Your task to perform on an android device: Is it going to rain today? Image 0: 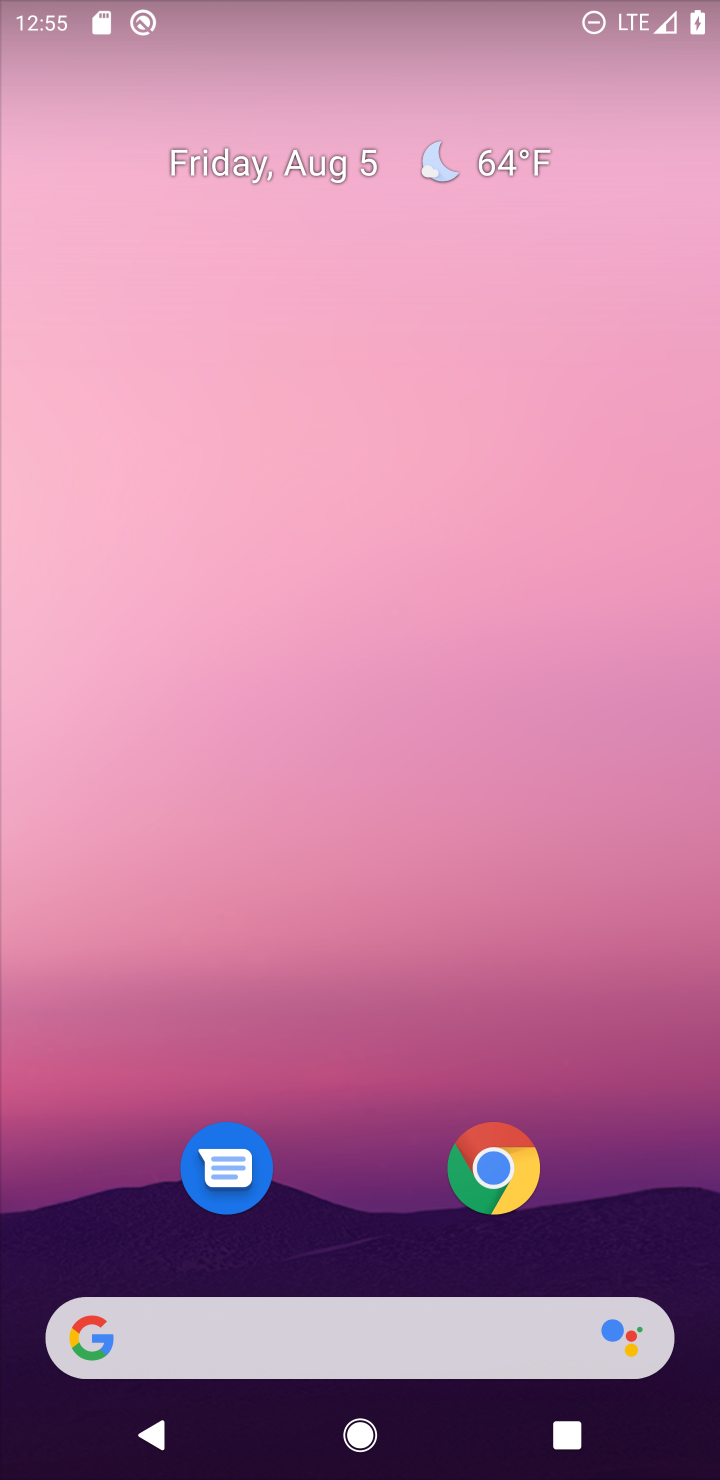
Step 0: drag from (670, 1174) to (313, 59)
Your task to perform on an android device: Is it going to rain today? Image 1: 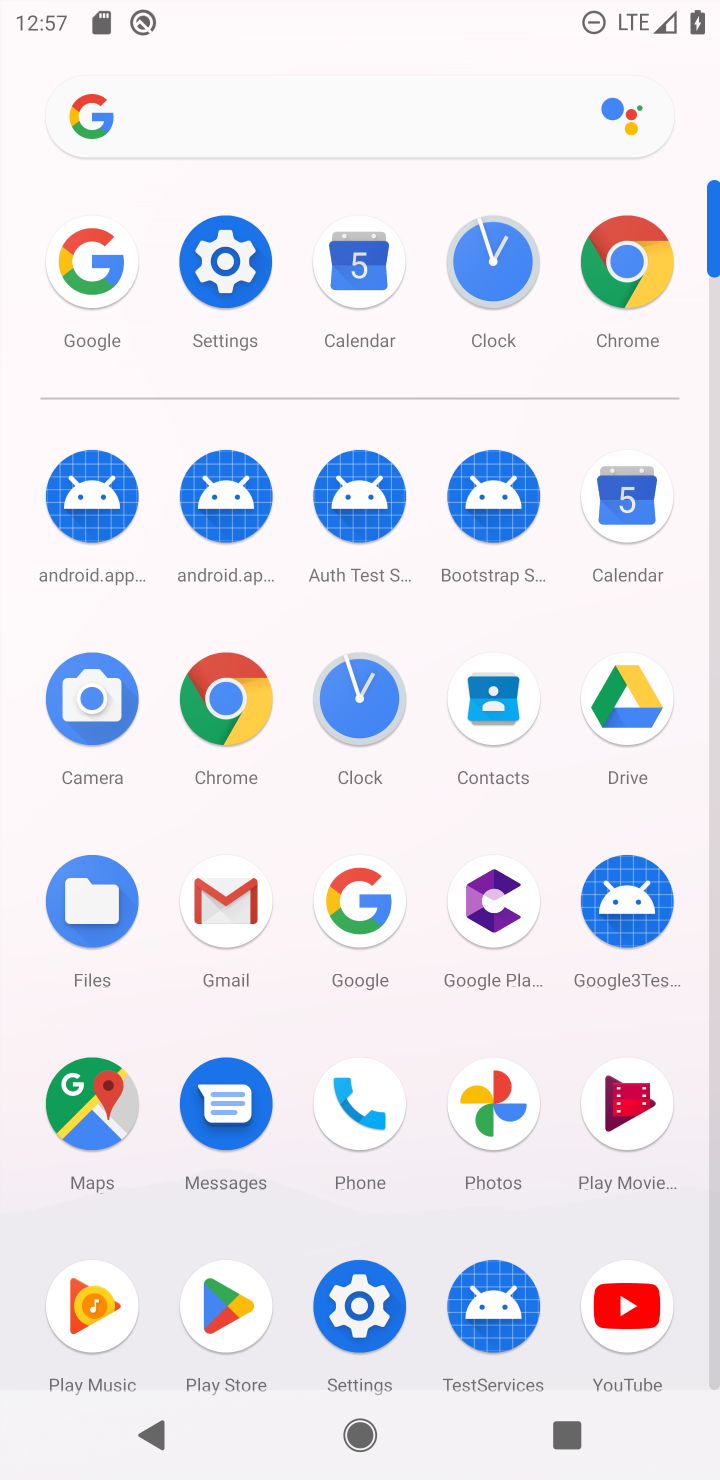
Step 1: click (367, 919)
Your task to perform on an android device: Is it going to rain today? Image 2: 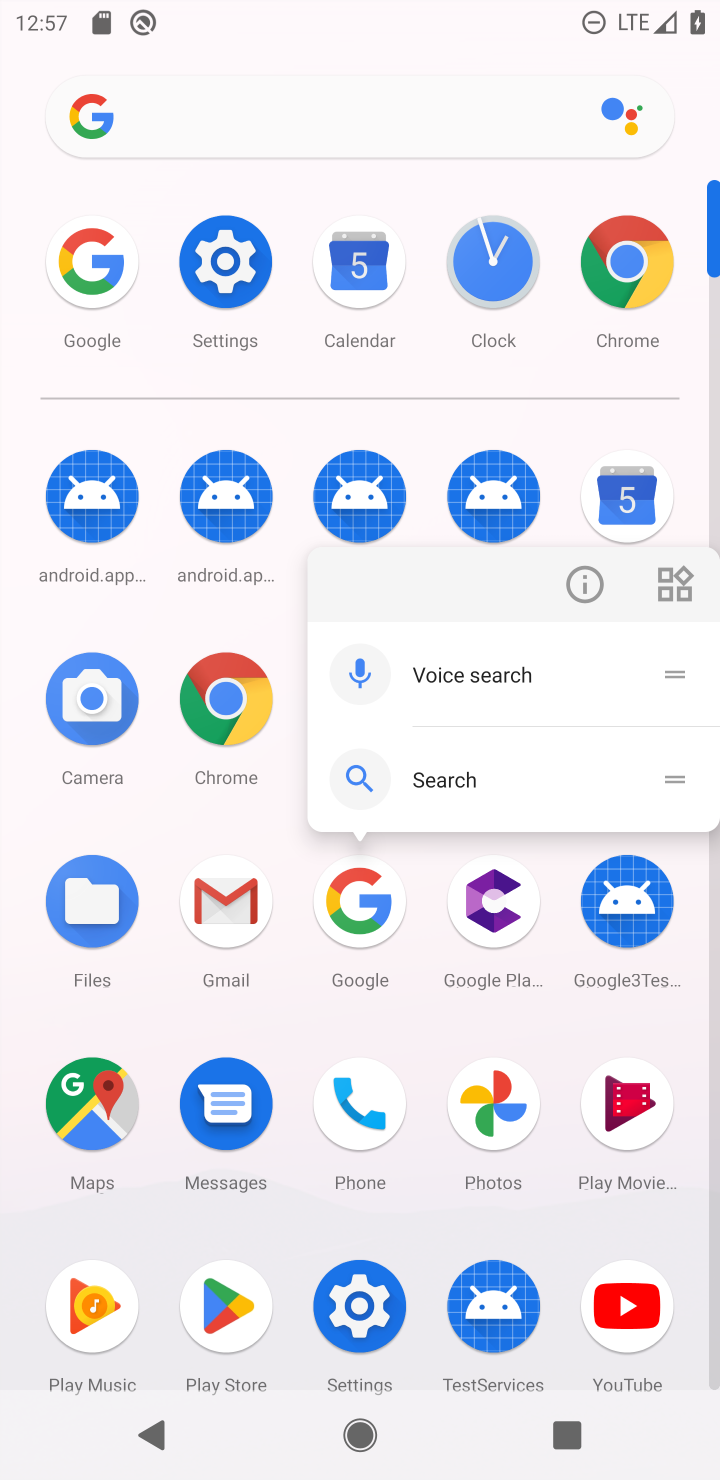
Step 2: click (367, 919)
Your task to perform on an android device: Is it going to rain today? Image 3: 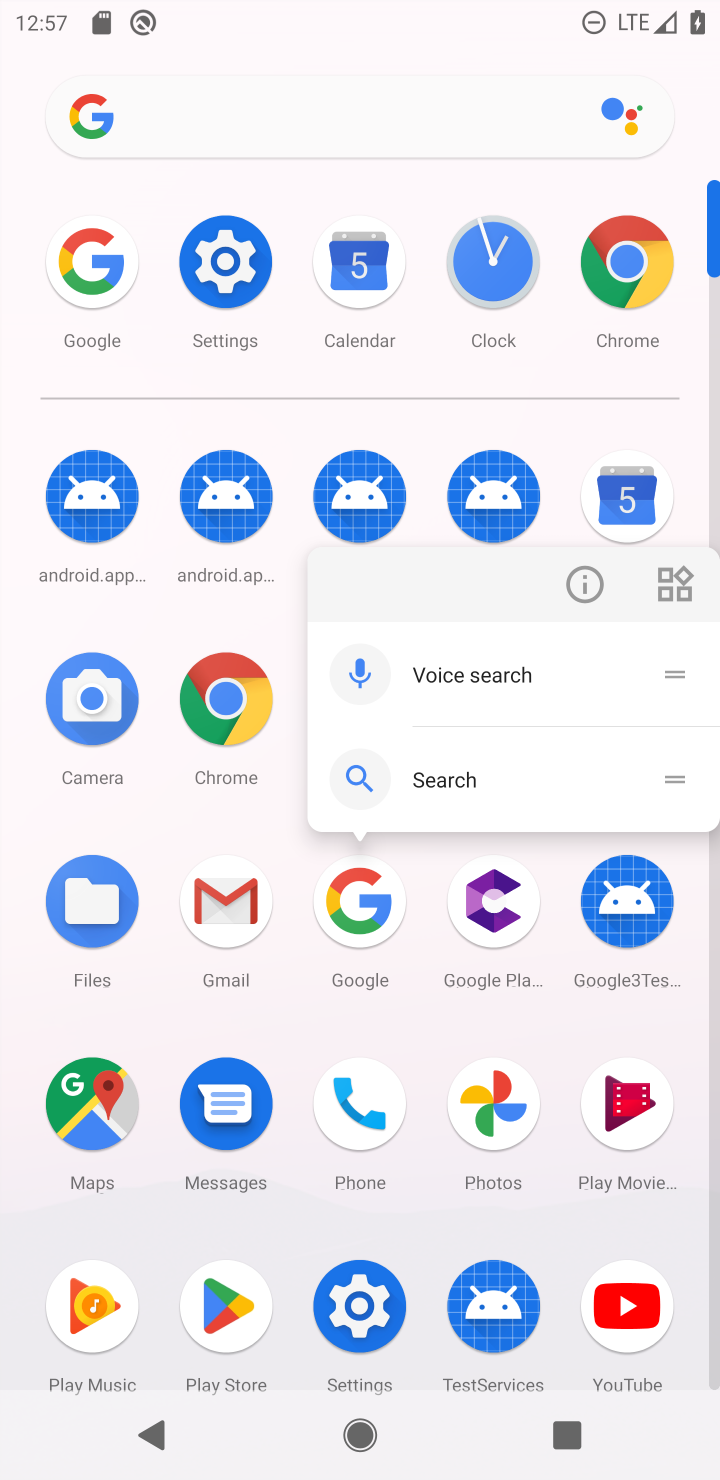
Step 3: click (363, 879)
Your task to perform on an android device: Is it going to rain today? Image 4: 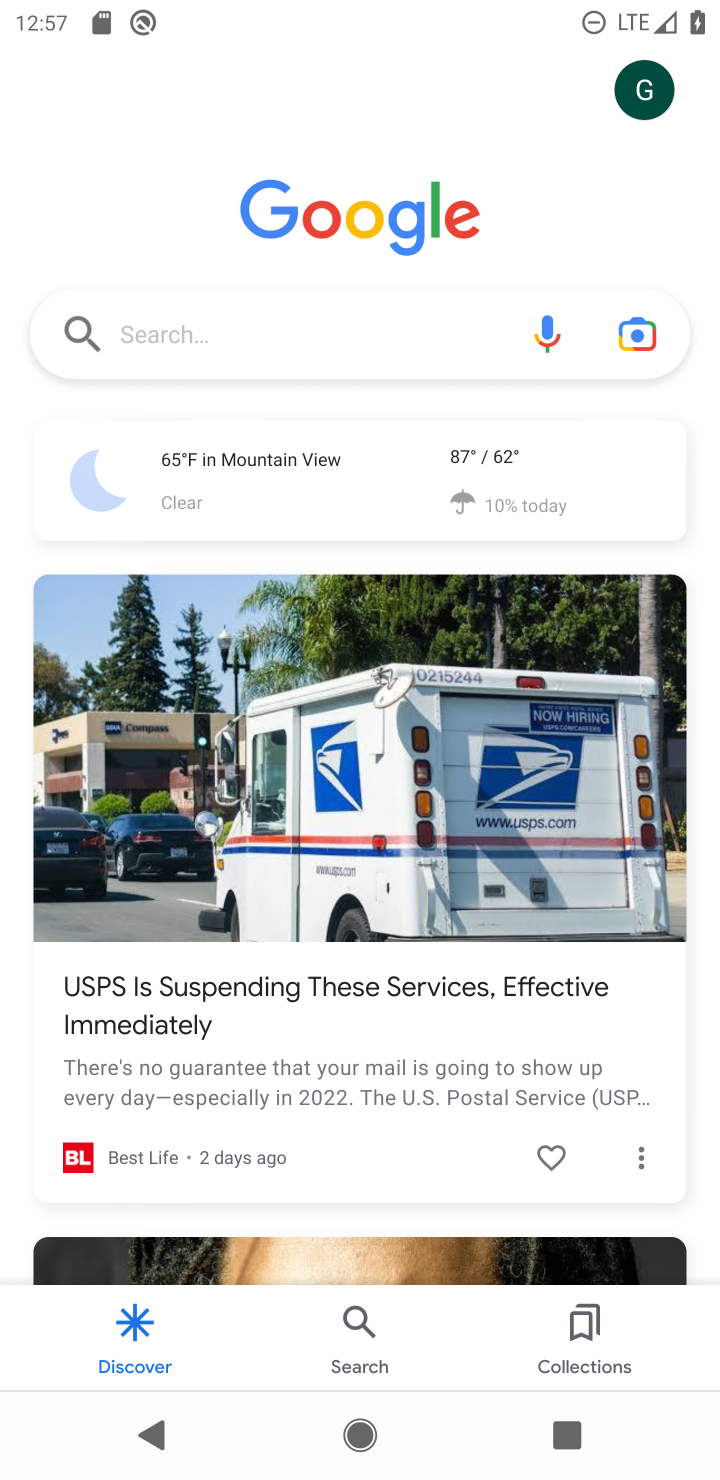
Step 4: click (231, 353)
Your task to perform on an android device: Is it going to rain today? Image 5: 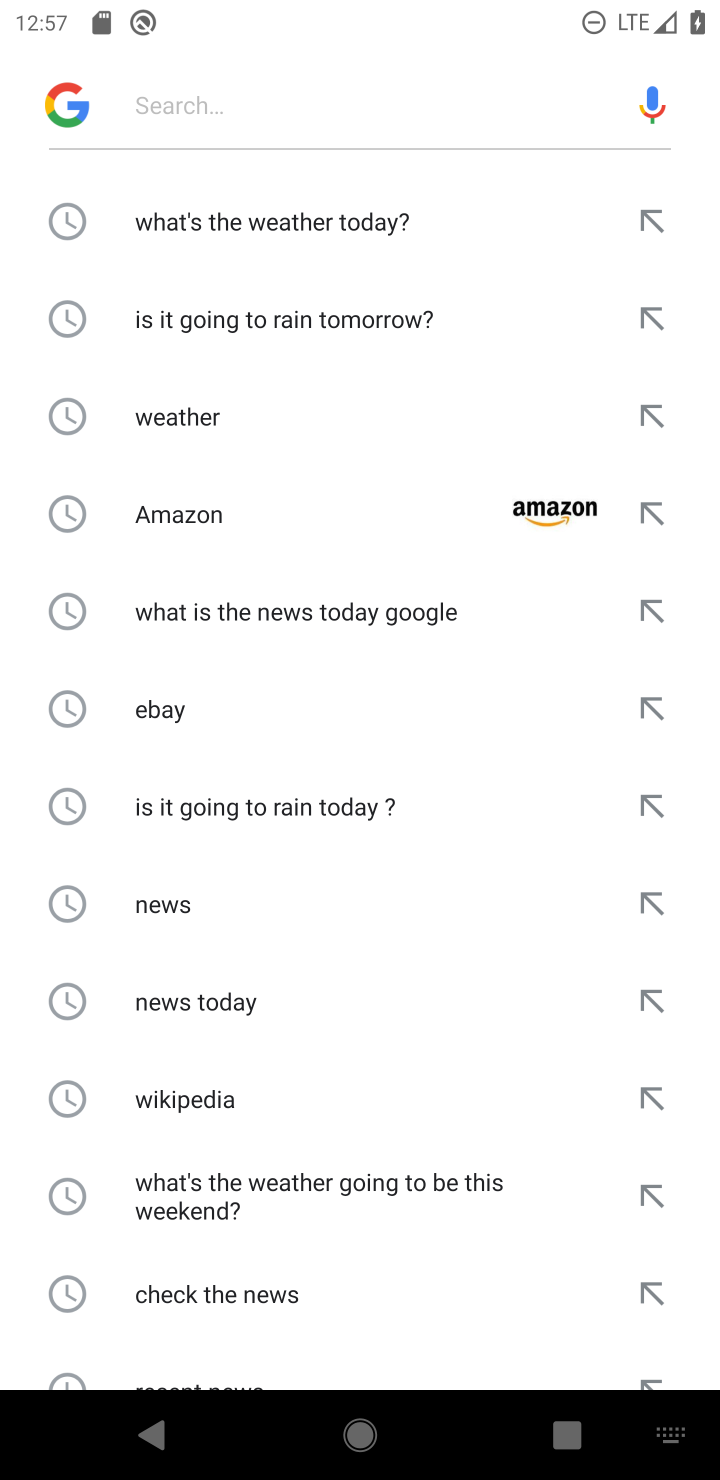
Step 5: click (281, 801)
Your task to perform on an android device: Is it going to rain today? Image 6: 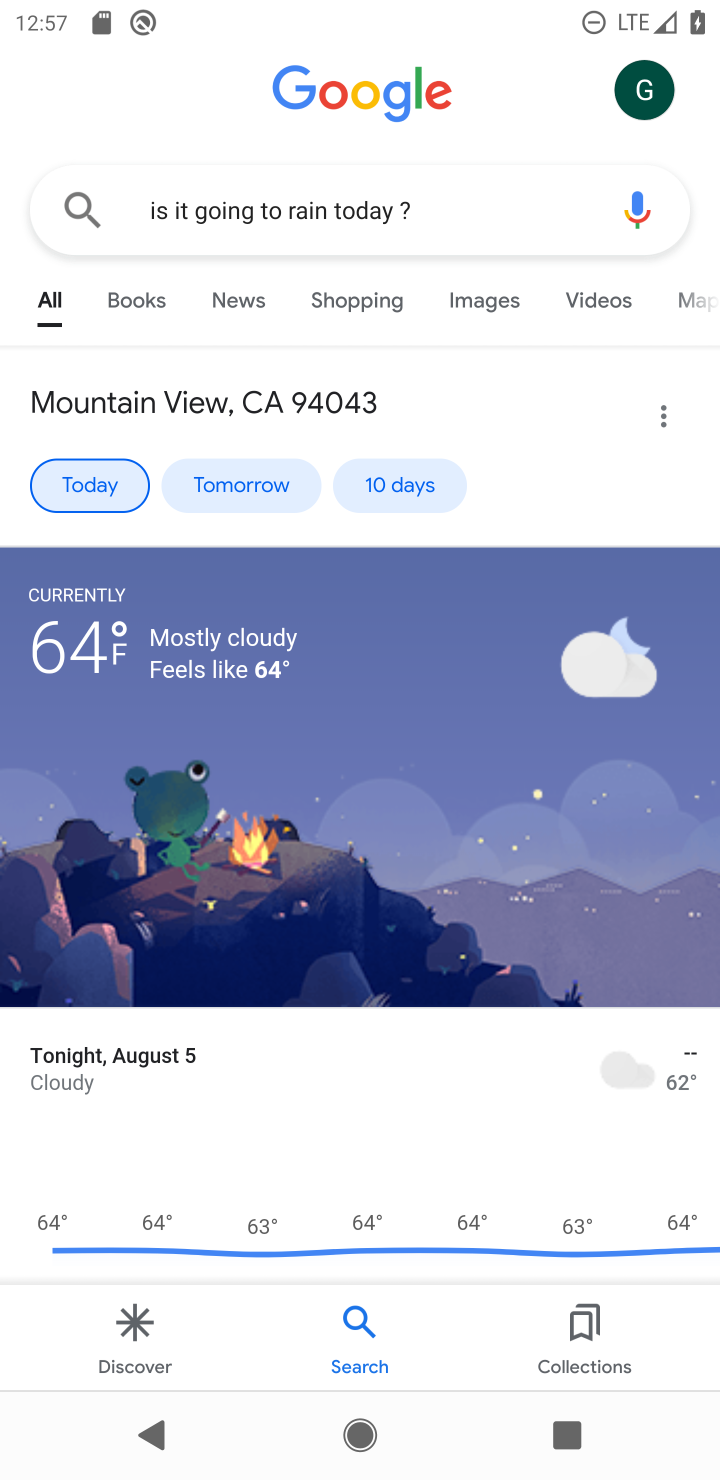
Step 6: task complete